Your task to perform on an android device: turn on location history Image 0: 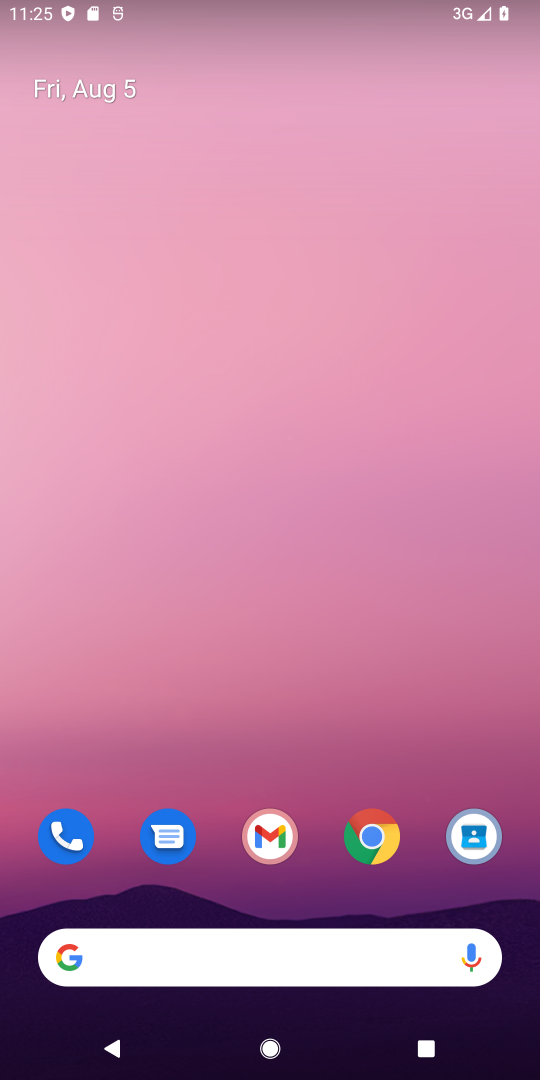
Step 0: drag from (327, 750) to (342, 197)
Your task to perform on an android device: turn on location history Image 1: 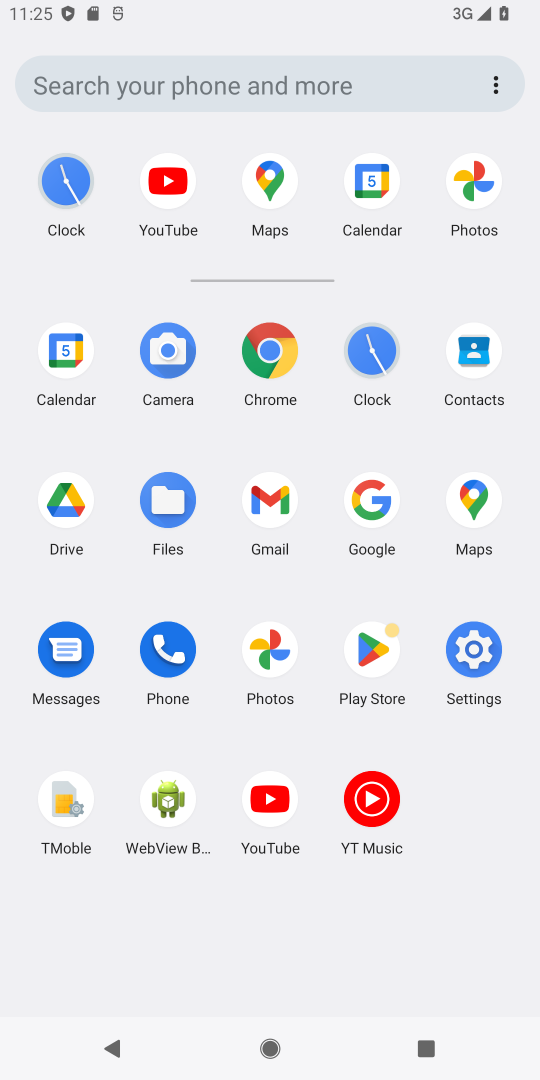
Step 1: click (477, 656)
Your task to perform on an android device: turn on location history Image 2: 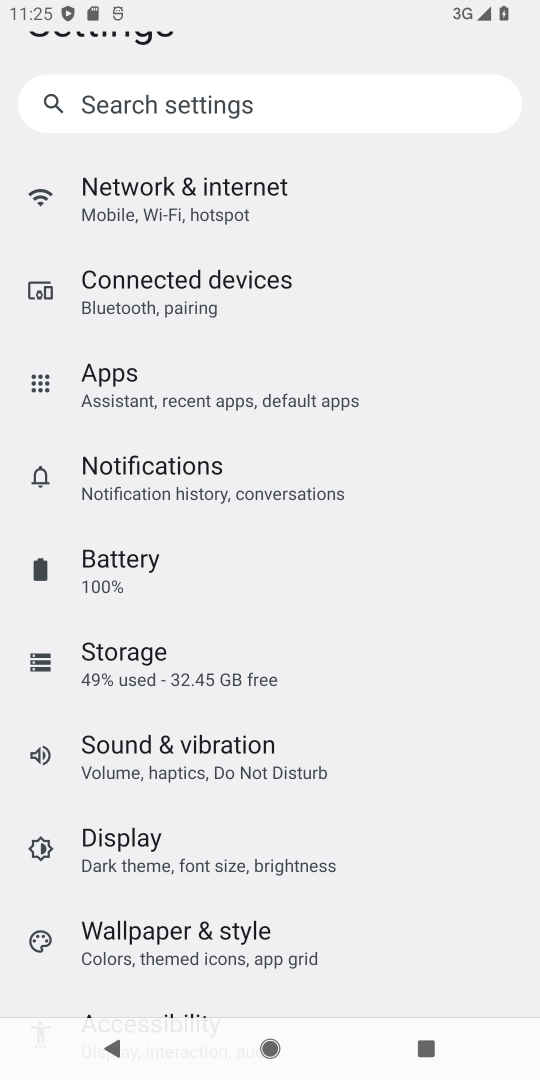
Step 2: drag from (399, 803) to (368, 296)
Your task to perform on an android device: turn on location history Image 3: 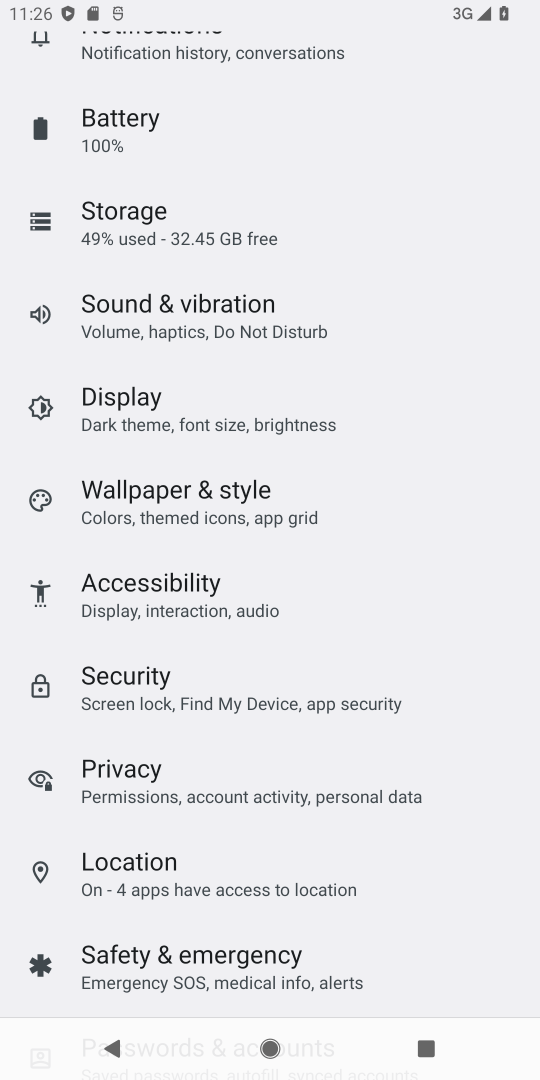
Step 3: click (124, 884)
Your task to perform on an android device: turn on location history Image 4: 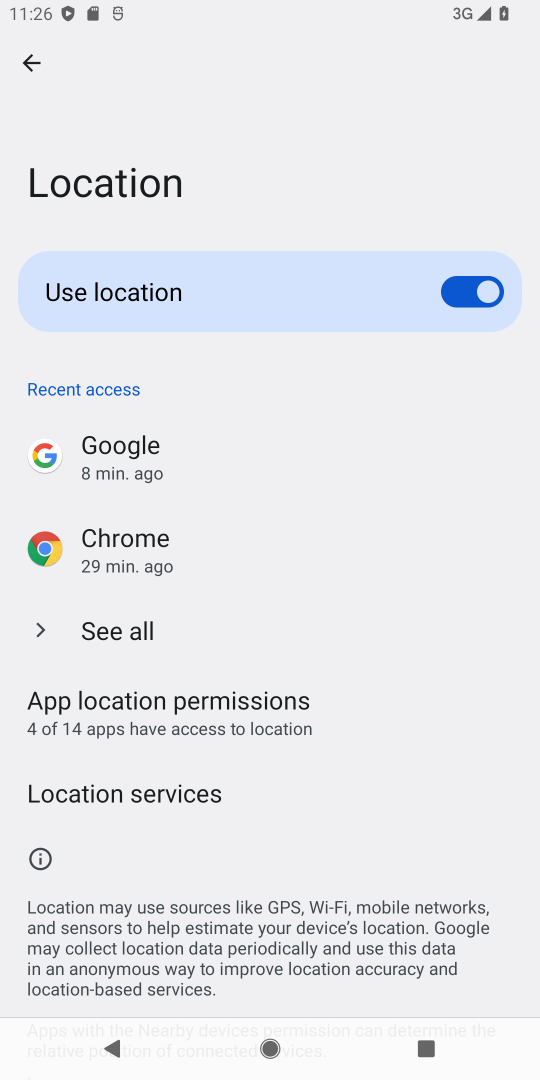
Step 4: task complete